Your task to perform on an android device: change your default location settings in chrome Image 0: 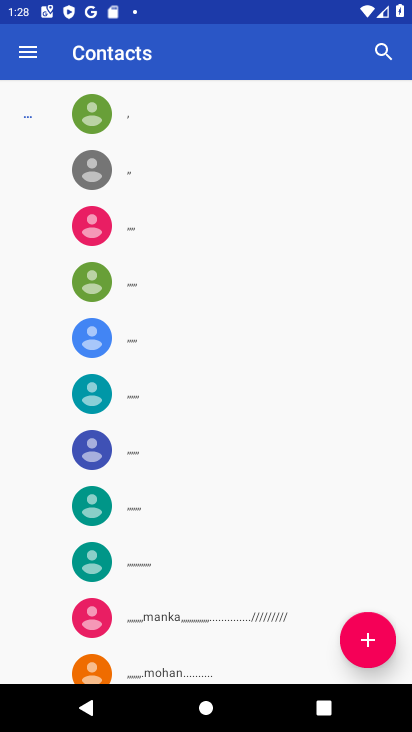
Step 0: press home button
Your task to perform on an android device: change your default location settings in chrome Image 1: 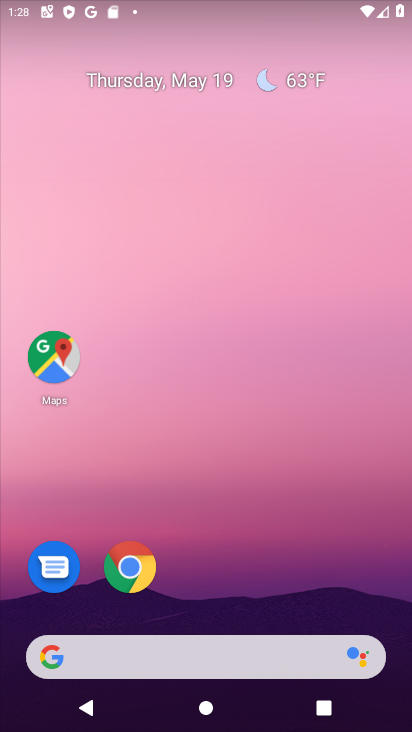
Step 1: drag from (334, 541) to (328, 104)
Your task to perform on an android device: change your default location settings in chrome Image 2: 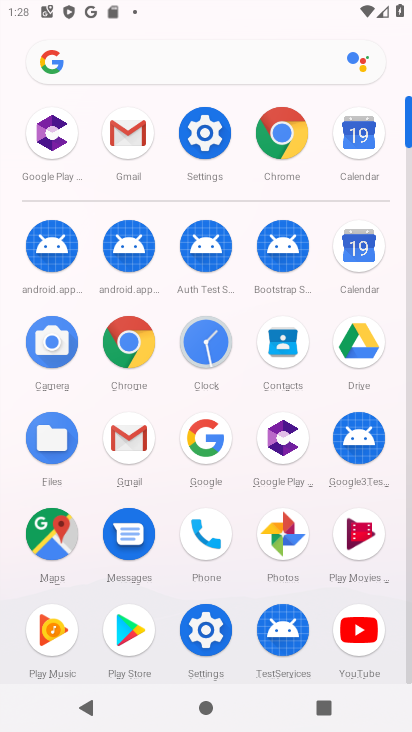
Step 2: click (298, 156)
Your task to perform on an android device: change your default location settings in chrome Image 3: 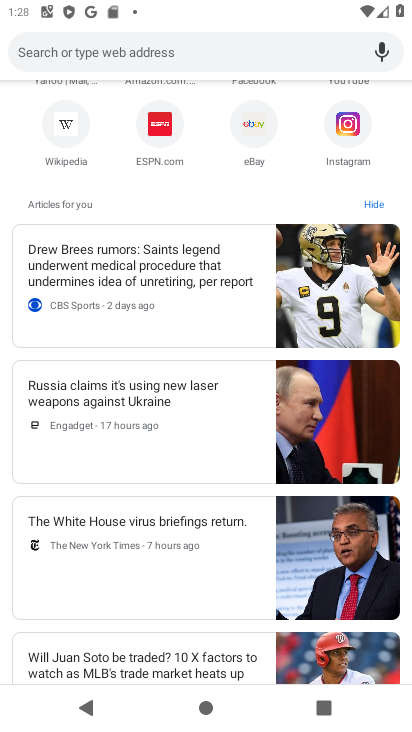
Step 3: drag from (209, 273) to (244, 684)
Your task to perform on an android device: change your default location settings in chrome Image 4: 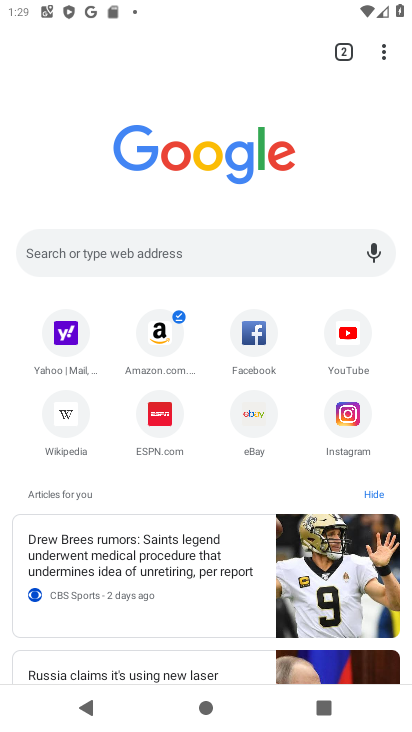
Step 4: drag from (381, 50) to (186, 446)
Your task to perform on an android device: change your default location settings in chrome Image 5: 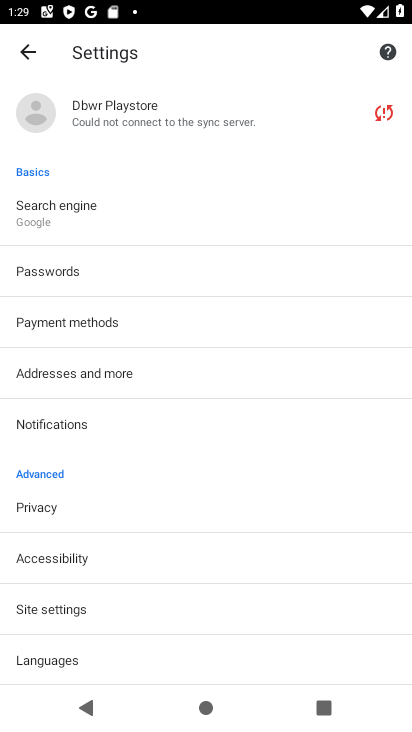
Step 5: drag from (178, 568) to (152, 215)
Your task to perform on an android device: change your default location settings in chrome Image 6: 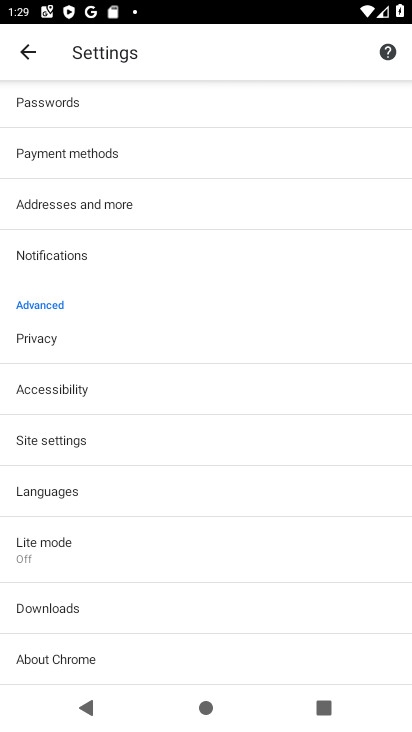
Step 6: click (51, 446)
Your task to perform on an android device: change your default location settings in chrome Image 7: 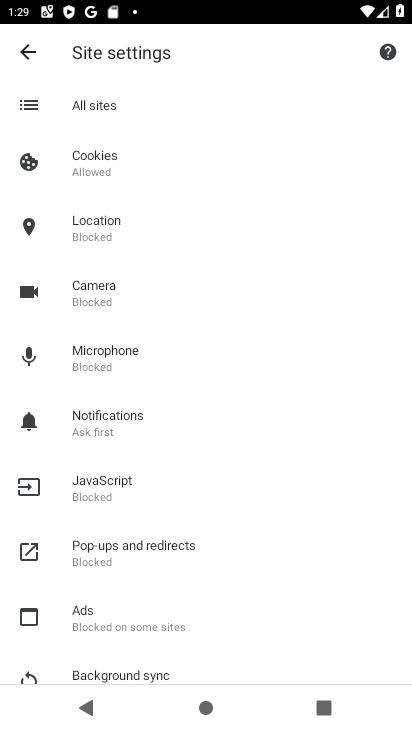
Step 7: click (107, 248)
Your task to perform on an android device: change your default location settings in chrome Image 8: 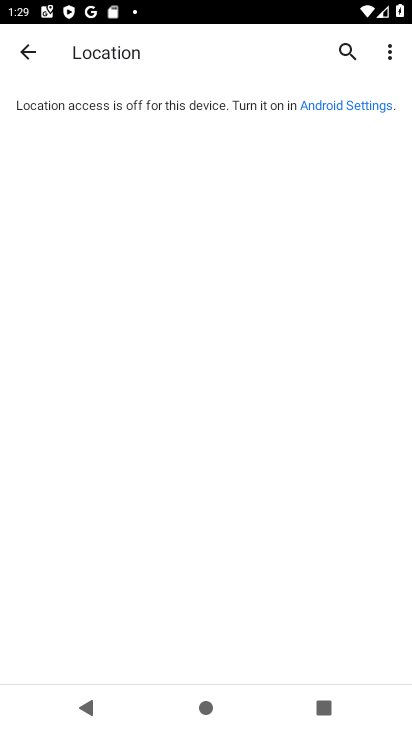
Step 8: click (352, 107)
Your task to perform on an android device: change your default location settings in chrome Image 9: 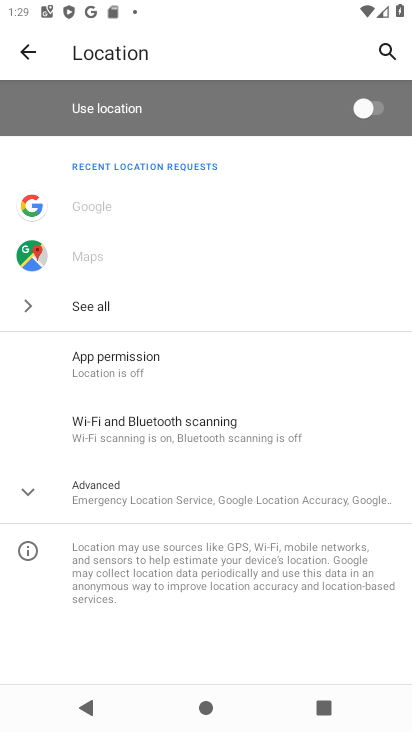
Step 9: click (372, 113)
Your task to perform on an android device: change your default location settings in chrome Image 10: 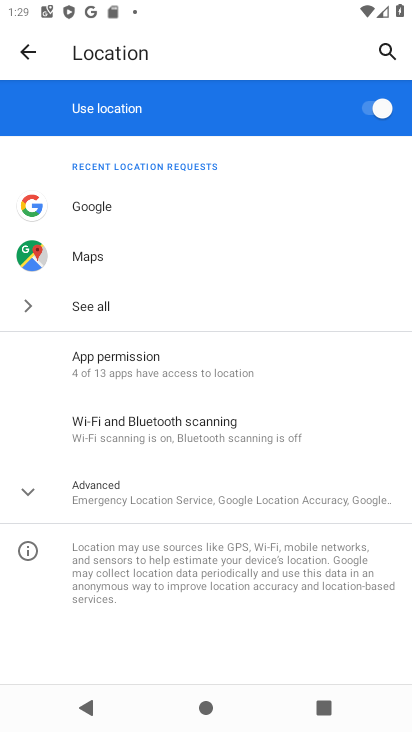
Step 10: task complete